Your task to perform on an android device: delete browsing data in the chrome app Image 0: 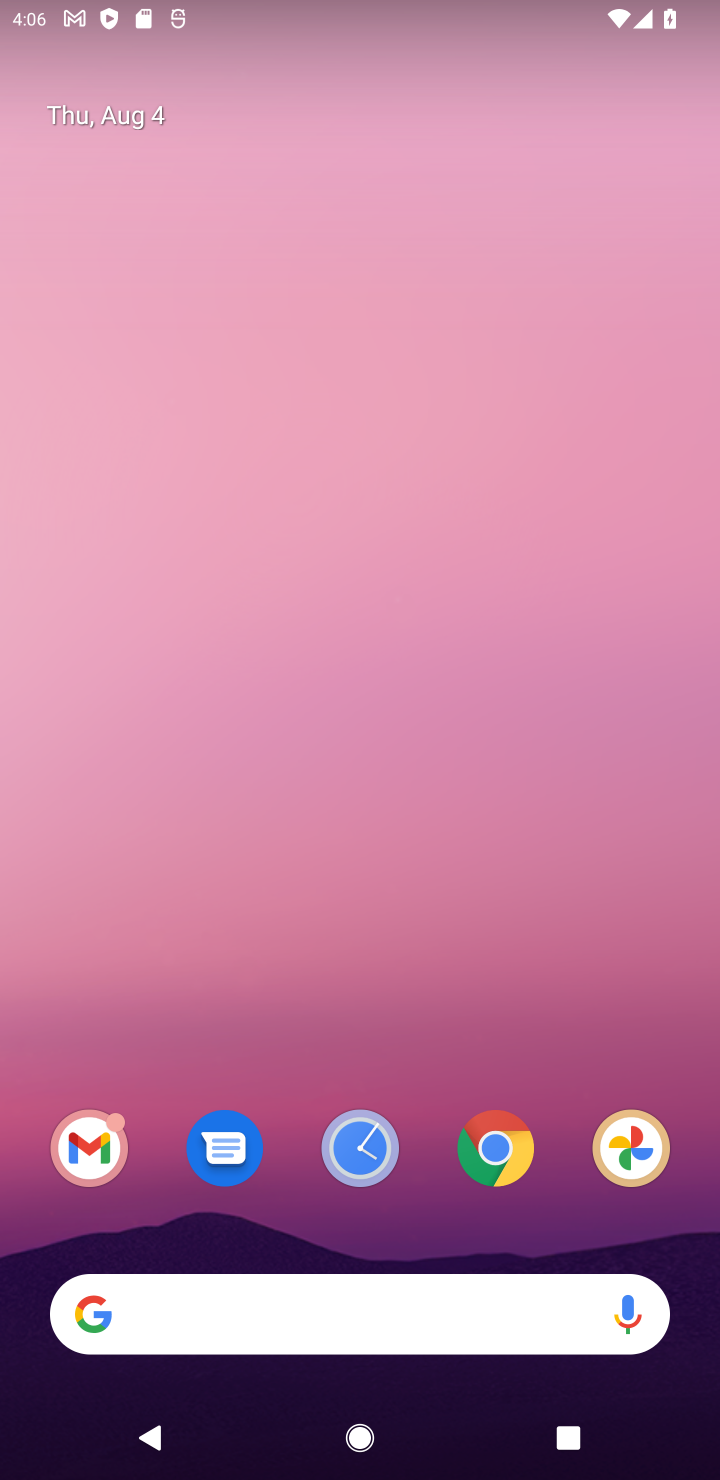
Step 0: click (495, 1155)
Your task to perform on an android device: delete browsing data in the chrome app Image 1: 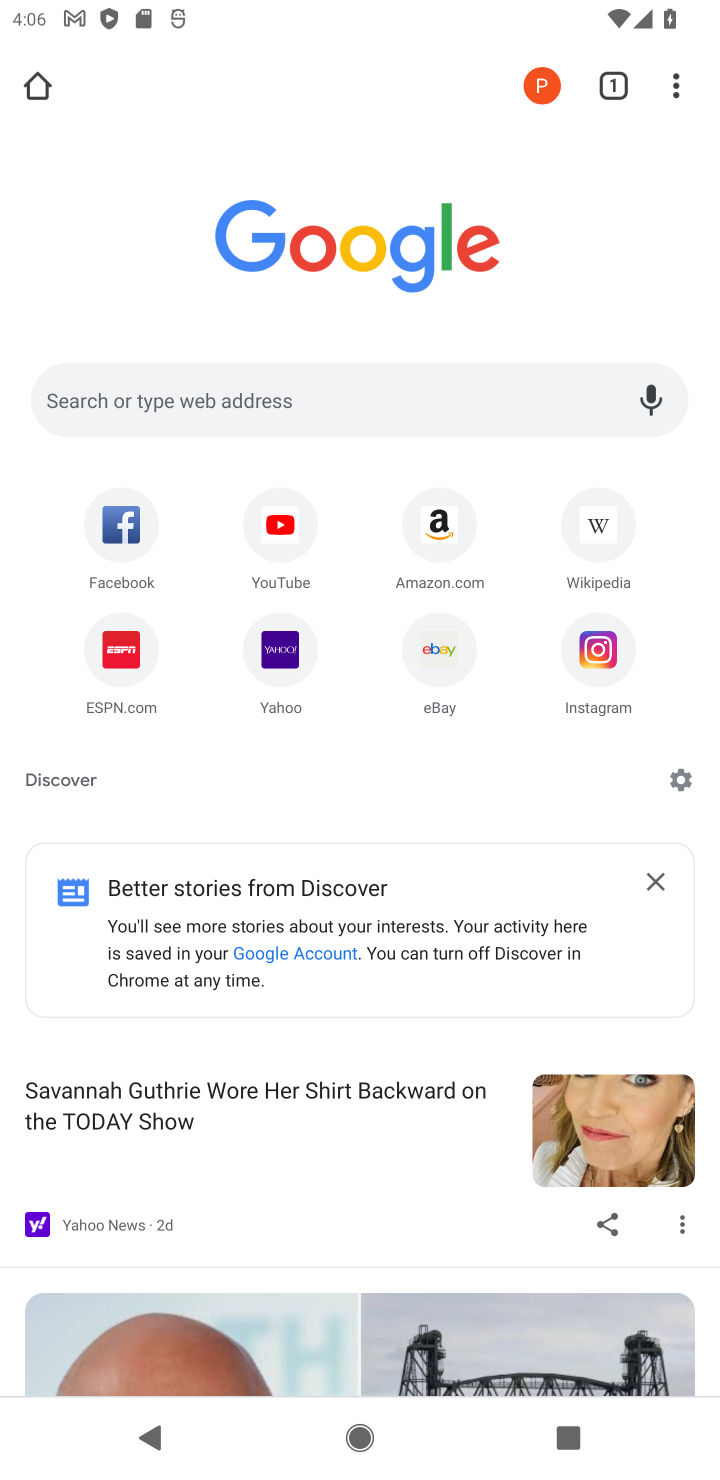
Step 1: click (677, 94)
Your task to perform on an android device: delete browsing data in the chrome app Image 2: 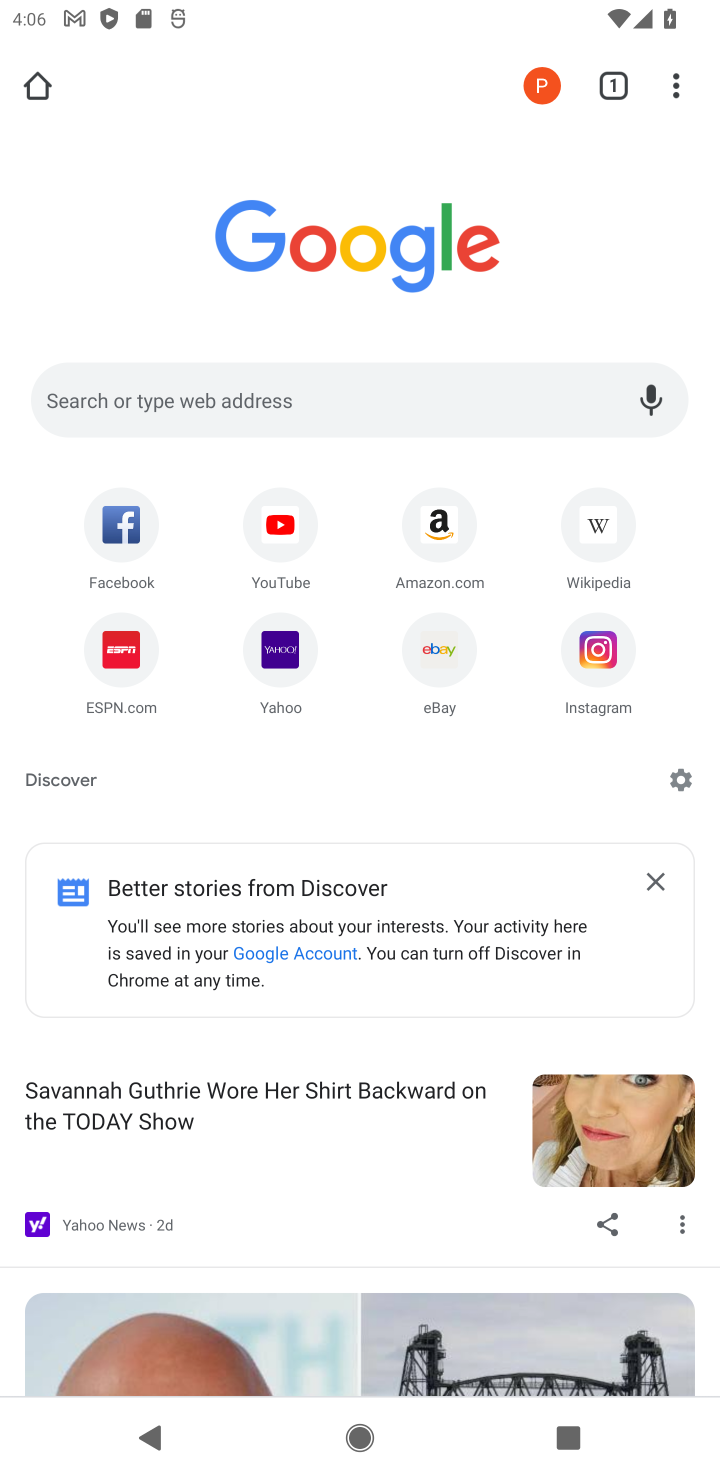
Step 2: click (667, 93)
Your task to perform on an android device: delete browsing data in the chrome app Image 3: 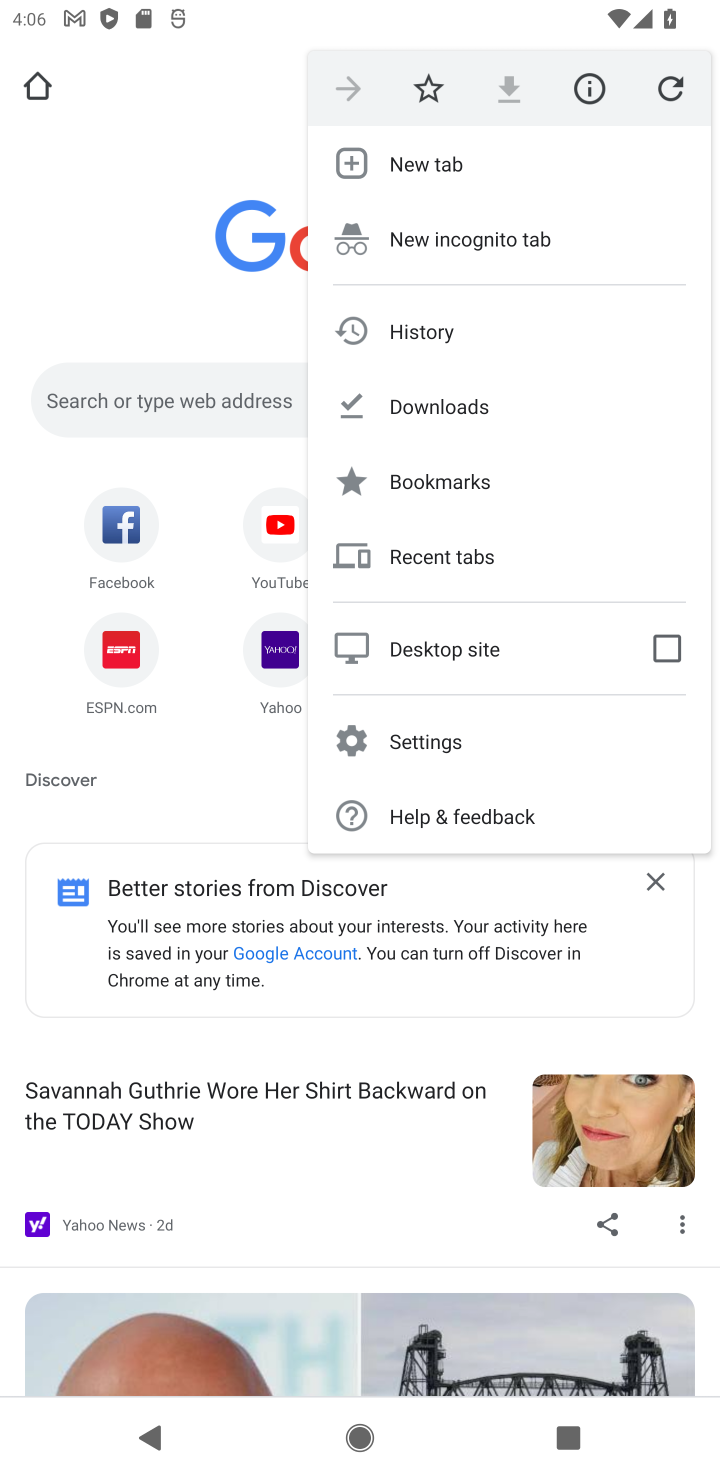
Step 3: click (424, 330)
Your task to perform on an android device: delete browsing data in the chrome app Image 4: 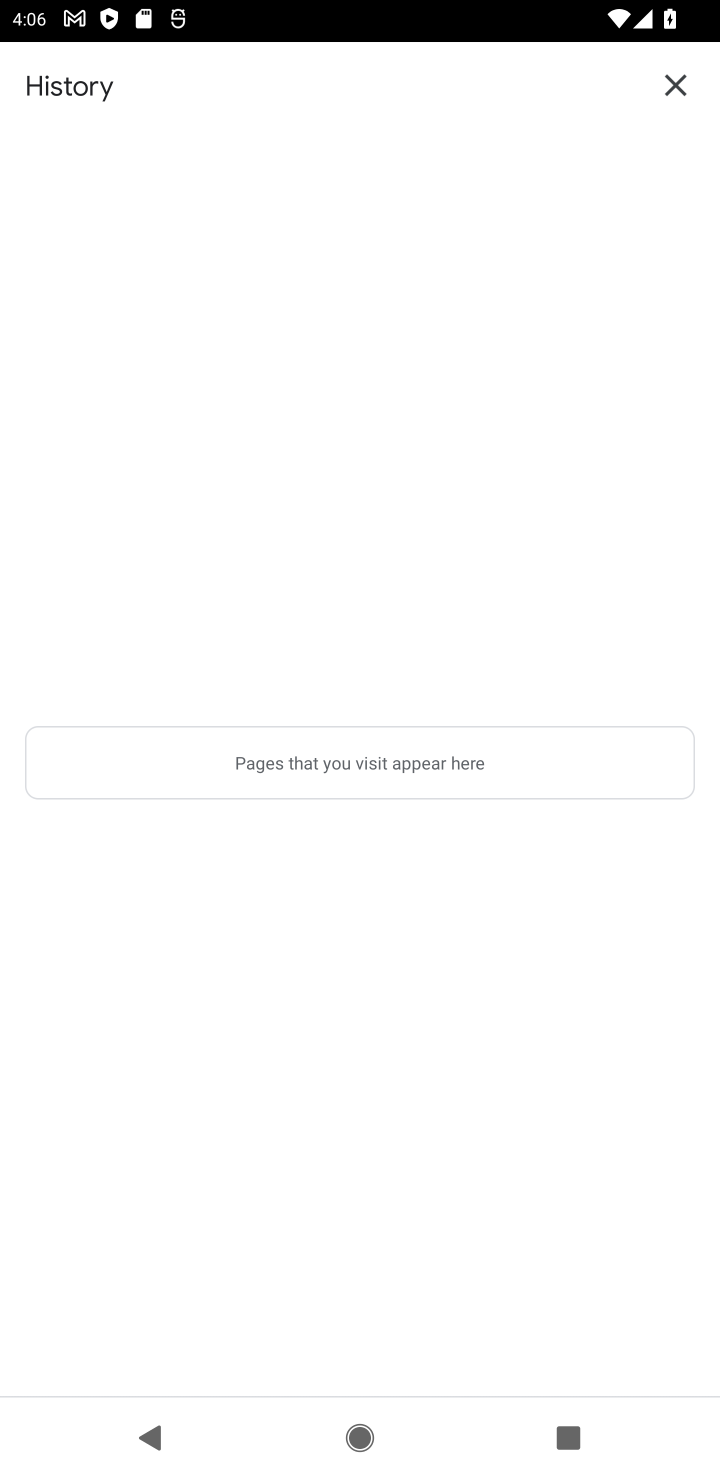
Step 4: task complete